Your task to perform on an android device: open the mobile data screen to see how much data has been used Image 0: 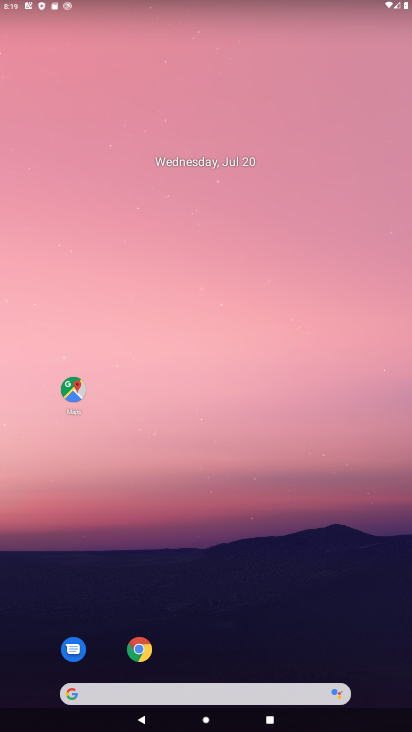
Step 0: drag from (180, 693) to (196, 240)
Your task to perform on an android device: open the mobile data screen to see how much data has been used Image 1: 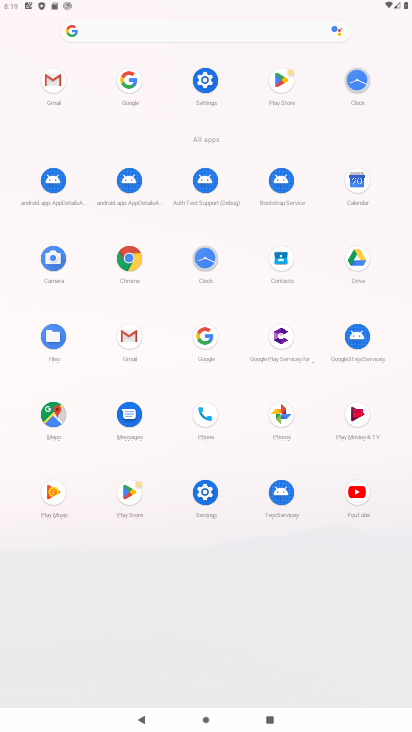
Step 1: click (206, 80)
Your task to perform on an android device: open the mobile data screen to see how much data has been used Image 2: 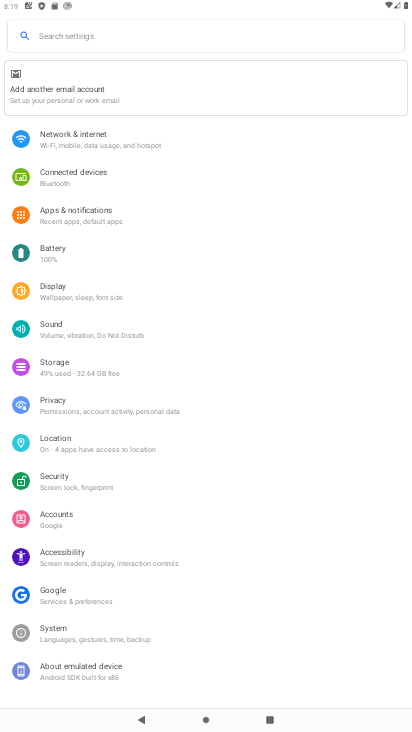
Step 2: click (85, 139)
Your task to perform on an android device: open the mobile data screen to see how much data has been used Image 3: 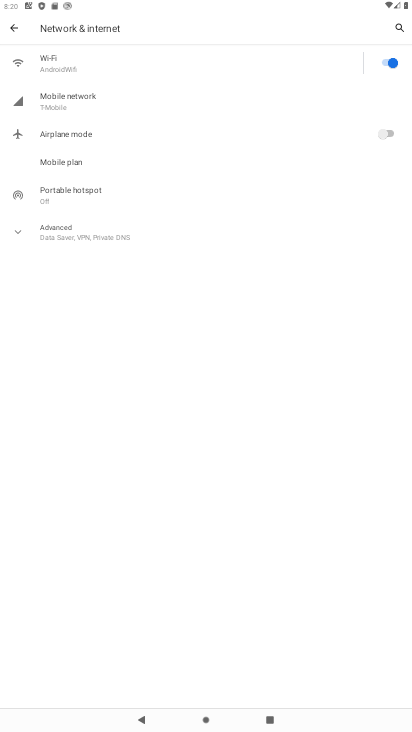
Step 3: click (59, 97)
Your task to perform on an android device: open the mobile data screen to see how much data has been used Image 4: 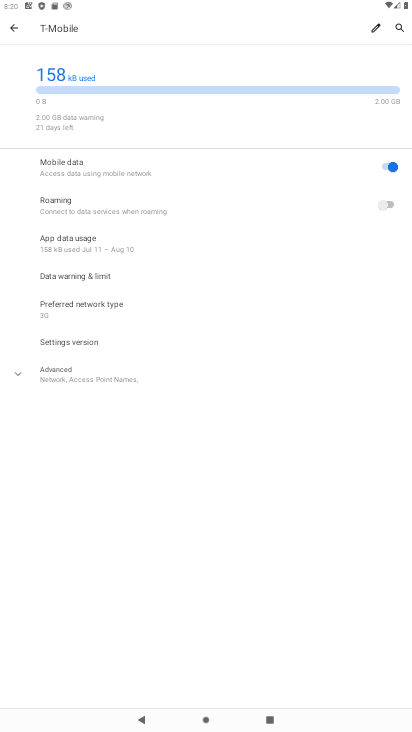
Step 4: task complete